Your task to perform on an android device: turn pop-ups on in chrome Image 0: 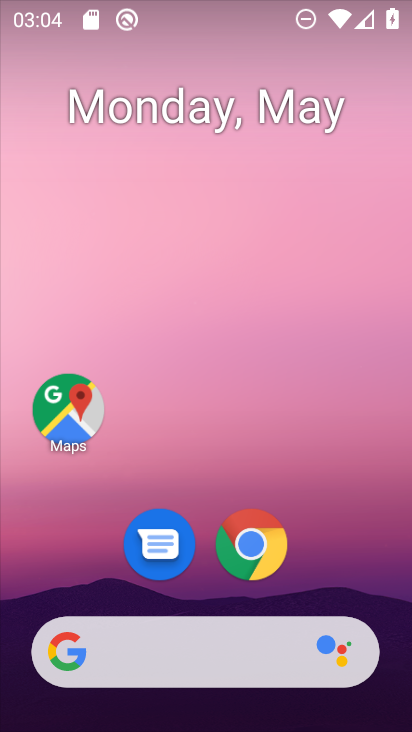
Step 0: drag from (373, 541) to (352, 139)
Your task to perform on an android device: turn pop-ups on in chrome Image 1: 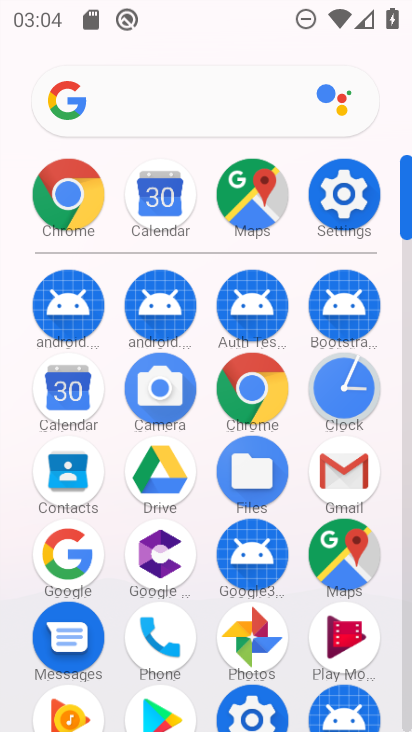
Step 1: click (275, 398)
Your task to perform on an android device: turn pop-ups on in chrome Image 2: 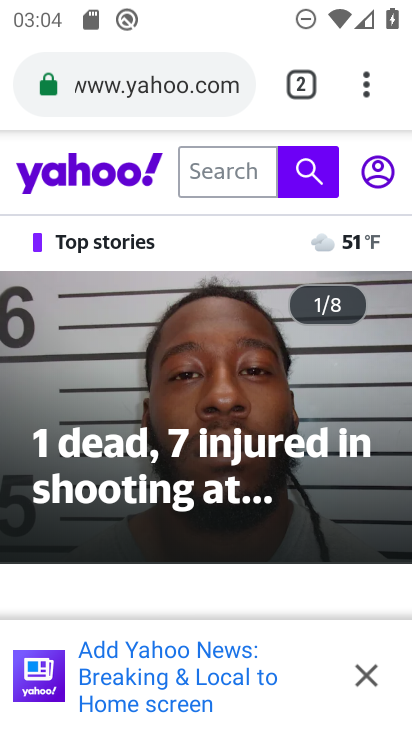
Step 2: click (365, 95)
Your task to perform on an android device: turn pop-ups on in chrome Image 3: 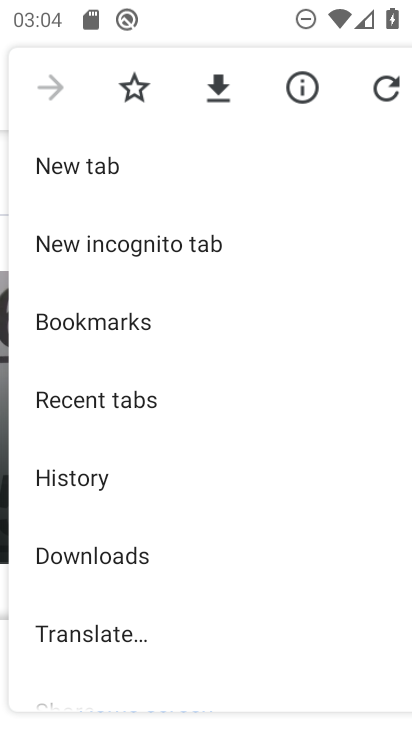
Step 3: drag from (310, 528) to (313, 392)
Your task to perform on an android device: turn pop-ups on in chrome Image 4: 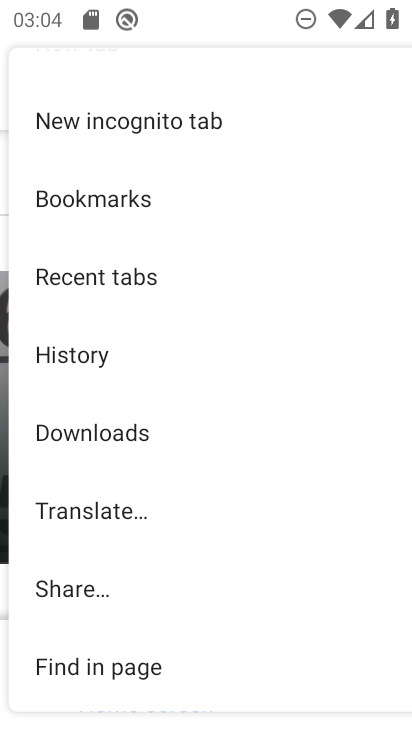
Step 4: drag from (310, 524) to (389, 272)
Your task to perform on an android device: turn pop-ups on in chrome Image 5: 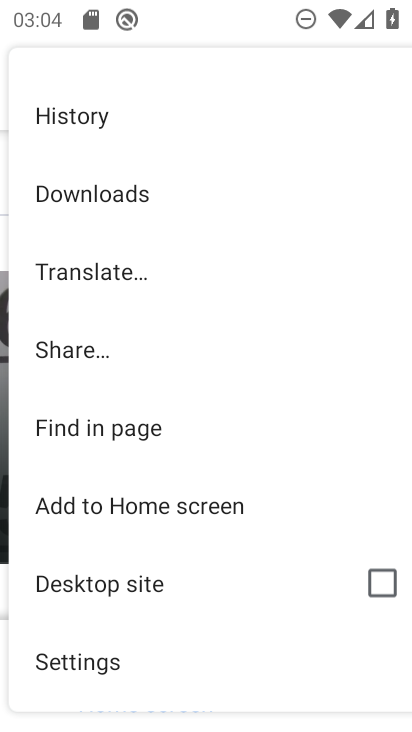
Step 5: drag from (322, 488) to (346, 331)
Your task to perform on an android device: turn pop-ups on in chrome Image 6: 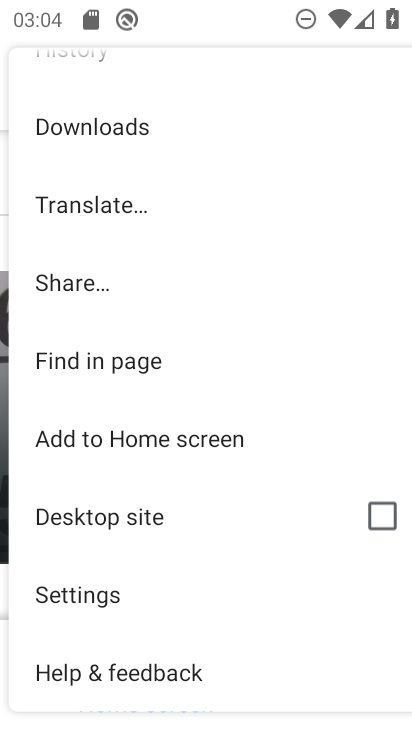
Step 6: click (117, 589)
Your task to perform on an android device: turn pop-ups on in chrome Image 7: 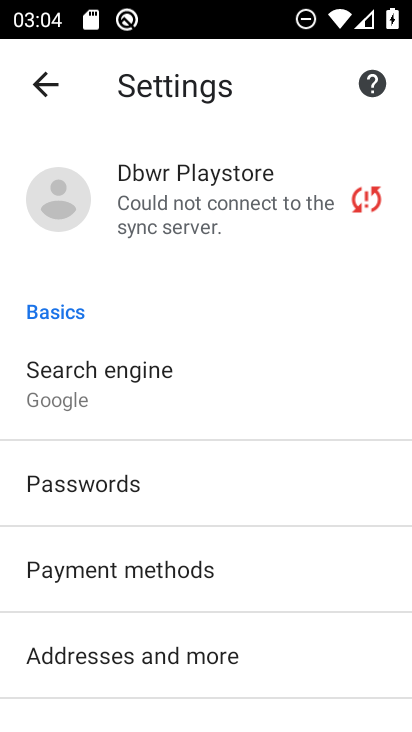
Step 7: drag from (293, 532) to (322, 382)
Your task to perform on an android device: turn pop-ups on in chrome Image 8: 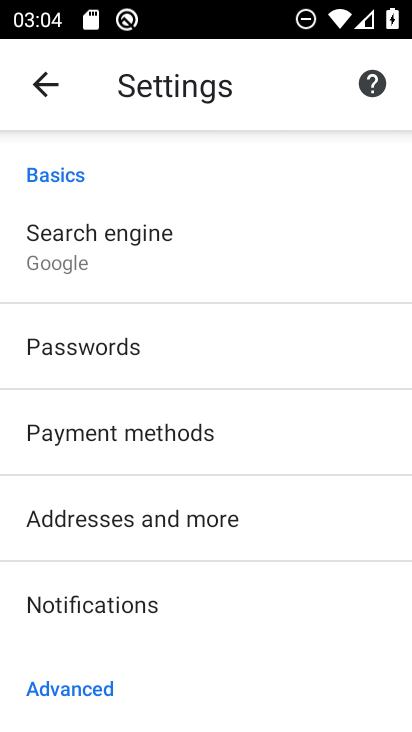
Step 8: drag from (297, 541) to (290, 421)
Your task to perform on an android device: turn pop-ups on in chrome Image 9: 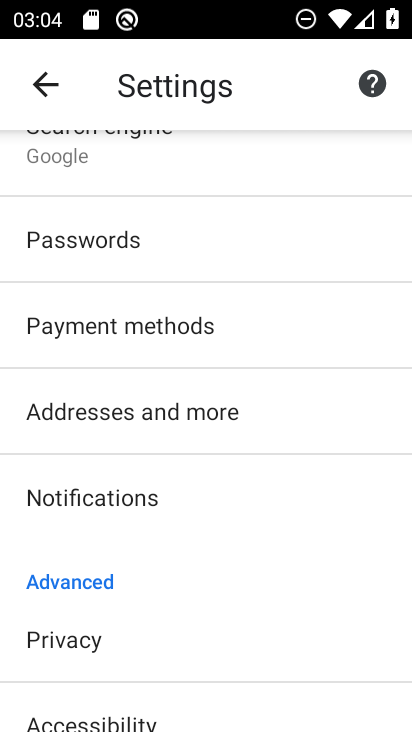
Step 9: drag from (292, 580) to (308, 475)
Your task to perform on an android device: turn pop-ups on in chrome Image 10: 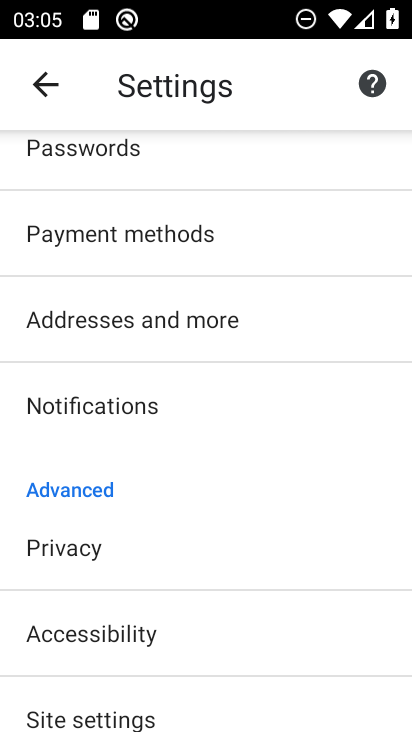
Step 10: drag from (289, 575) to (280, 492)
Your task to perform on an android device: turn pop-ups on in chrome Image 11: 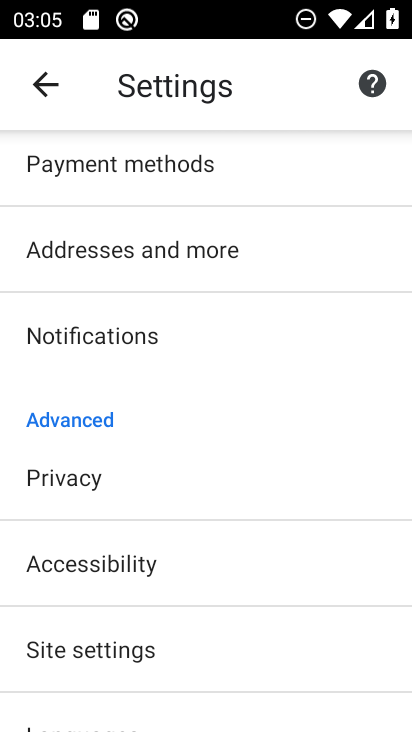
Step 11: drag from (272, 573) to (273, 451)
Your task to perform on an android device: turn pop-ups on in chrome Image 12: 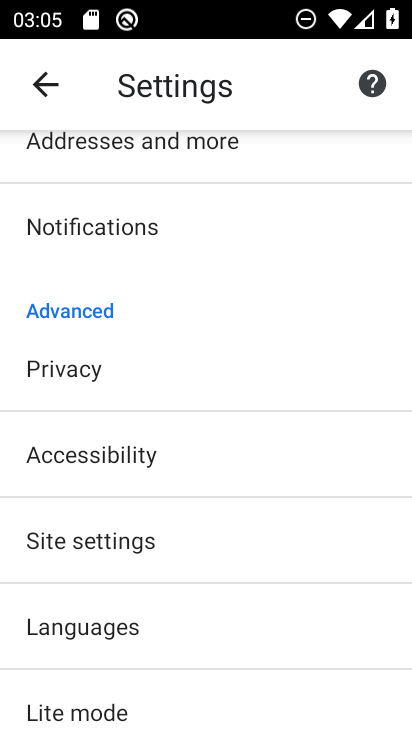
Step 12: drag from (263, 608) to (270, 494)
Your task to perform on an android device: turn pop-ups on in chrome Image 13: 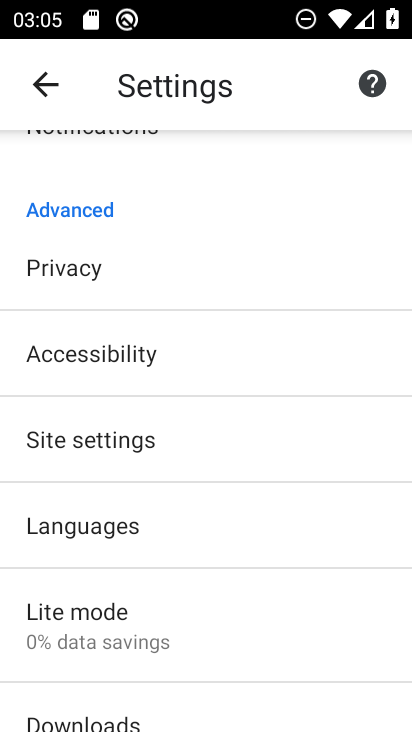
Step 13: click (293, 443)
Your task to perform on an android device: turn pop-ups on in chrome Image 14: 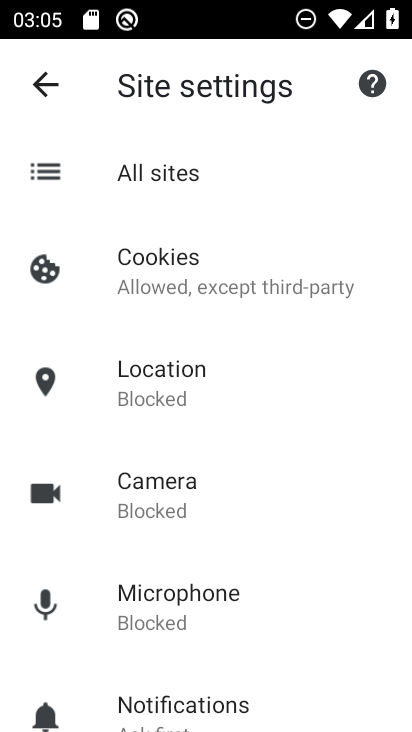
Step 14: drag from (300, 501) to (308, 423)
Your task to perform on an android device: turn pop-ups on in chrome Image 15: 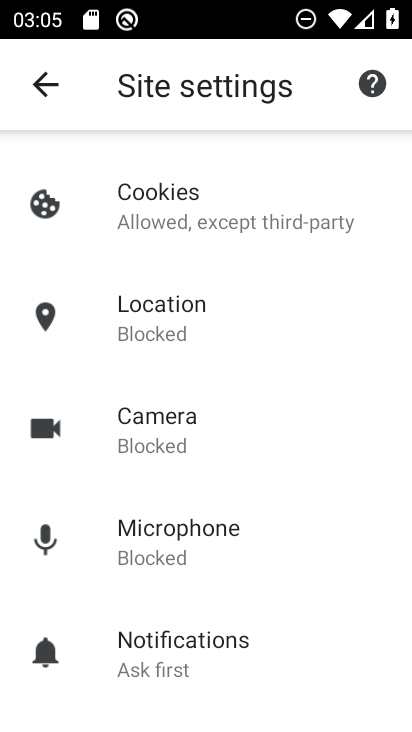
Step 15: drag from (283, 533) to (317, 411)
Your task to perform on an android device: turn pop-ups on in chrome Image 16: 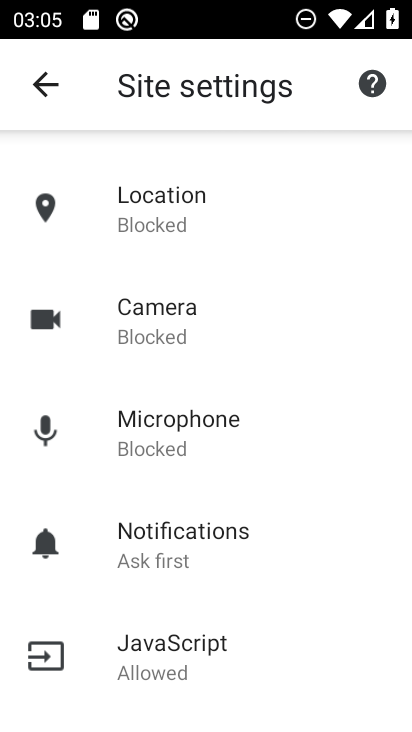
Step 16: drag from (302, 521) to (310, 410)
Your task to perform on an android device: turn pop-ups on in chrome Image 17: 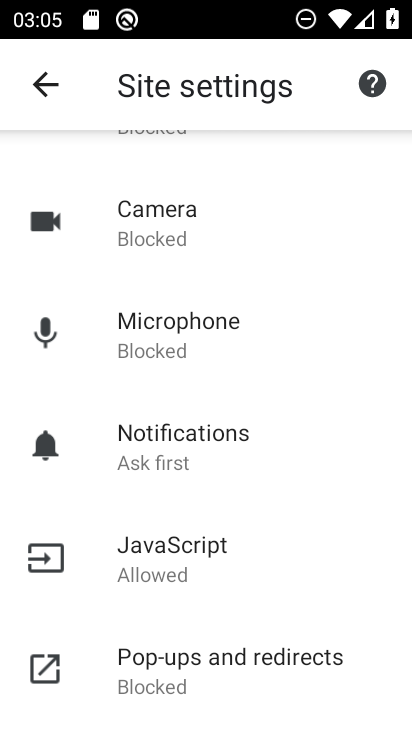
Step 17: drag from (298, 561) to (330, 401)
Your task to perform on an android device: turn pop-ups on in chrome Image 18: 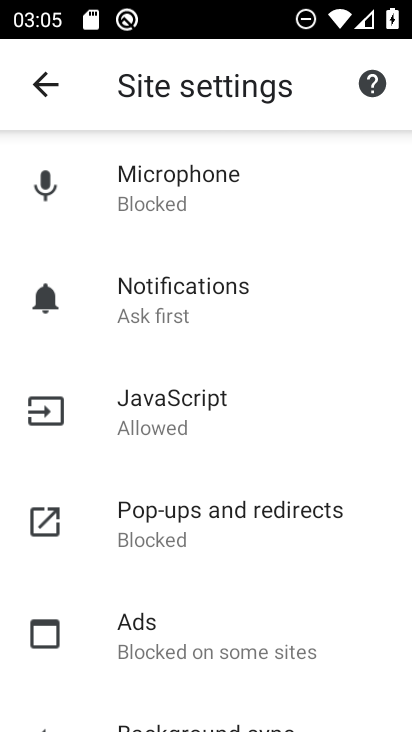
Step 18: click (292, 545)
Your task to perform on an android device: turn pop-ups on in chrome Image 19: 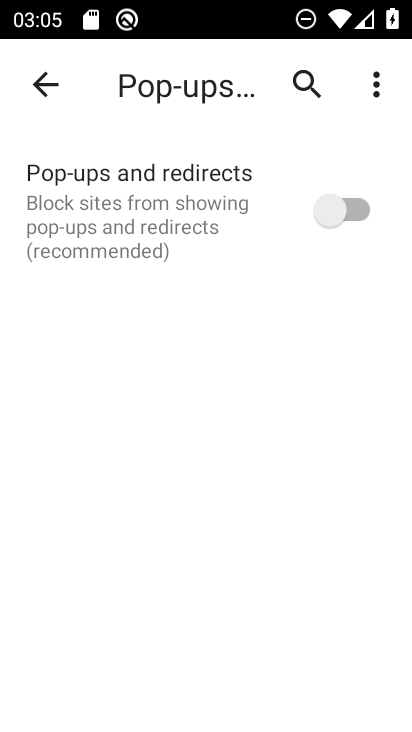
Step 19: click (336, 221)
Your task to perform on an android device: turn pop-ups on in chrome Image 20: 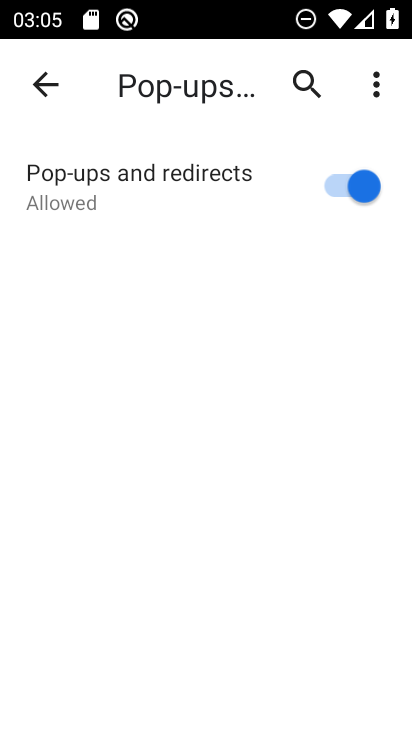
Step 20: task complete